Your task to perform on an android device: Open notification settings Image 0: 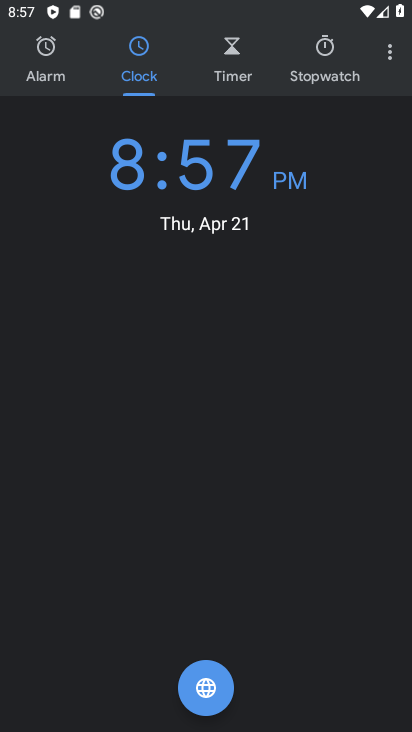
Step 0: press home button
Your task to perform on an android device: Open notification settings Image 1: 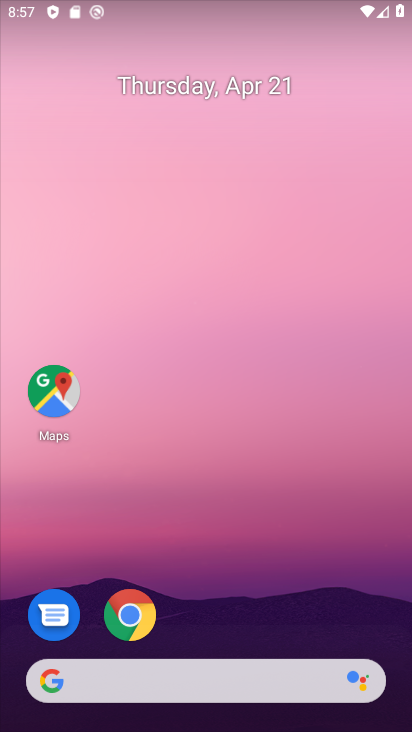
Step 1: drag from (205, 554) to (205, 109)
Your task to perform on an android device: Open notification settings Image 2: 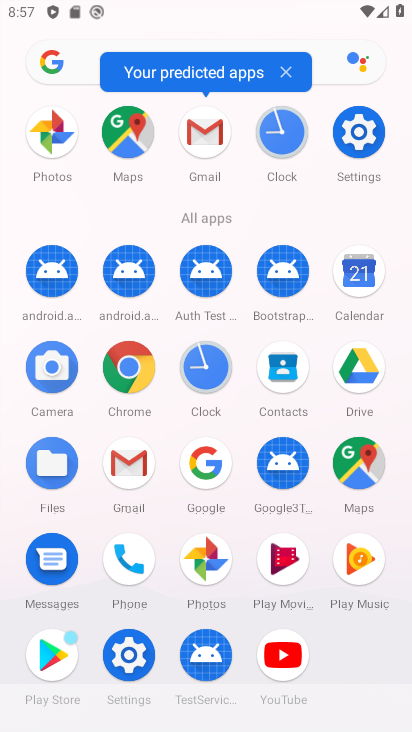
Step 2: click (362, 126)
Your task to perform on an android device: Open notification settings Image 3: 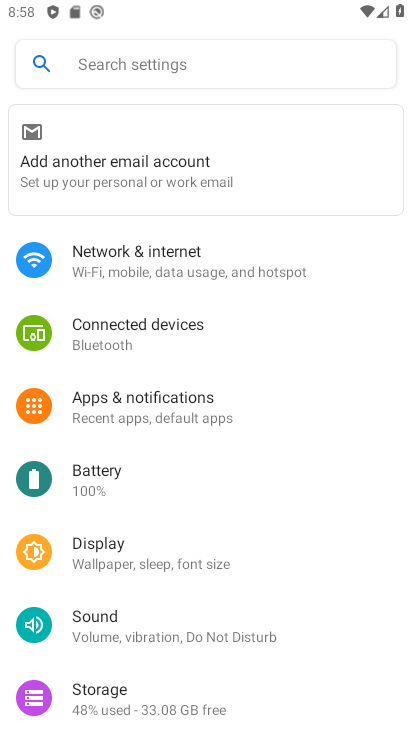
Step 3: click (146, 406)
Your task to perform on an android device: Open notification settings Image 4: 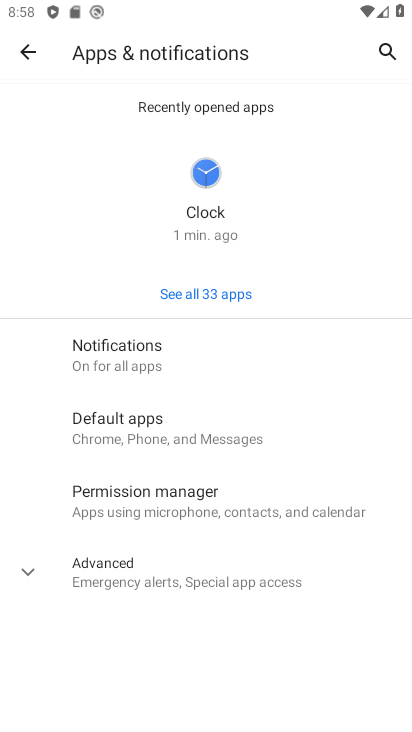
Step 4: task complete